Your task to perform on an android device: Go to notification settings Image 0: 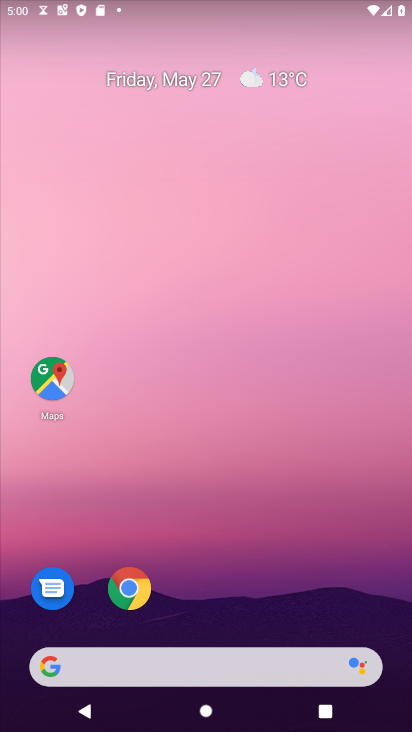
Step 0: drag from (234, 562) to (285, 89)
Your task to perform on an android device: Go to notification settings Image 1: 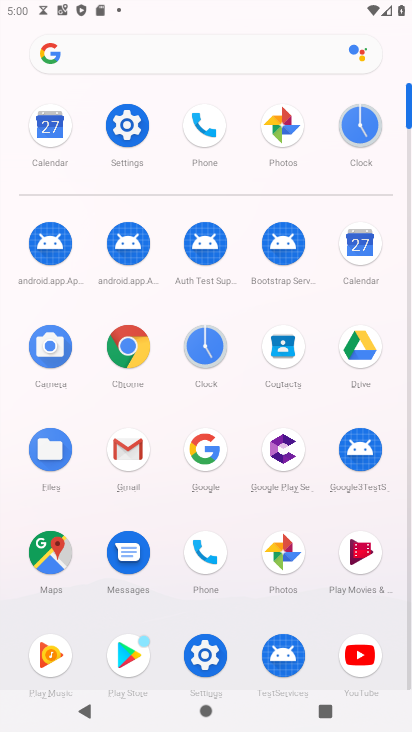
Step 1: click (107, 121)
Your task to perform on an android device: Go to notification settings Image 2: 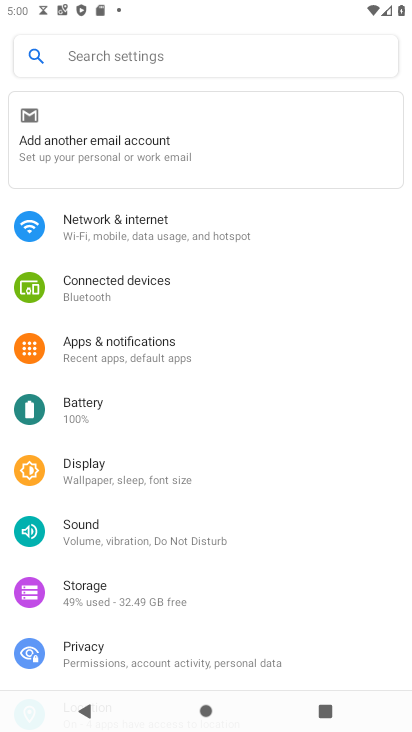
Step 2: click (210, 363)
Your task to perform on an android device: Go to notification settings Image 3: 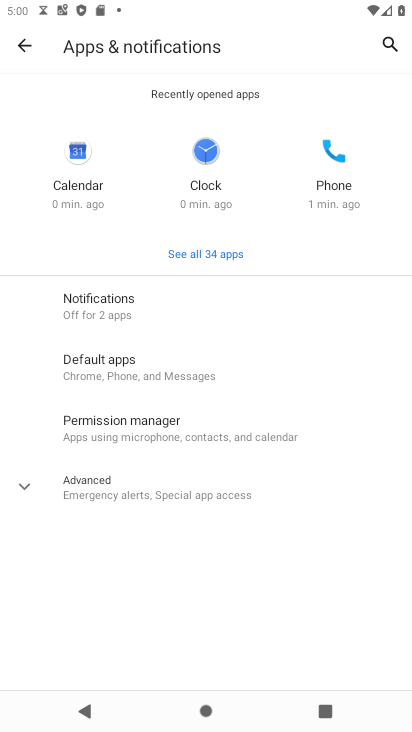
Step 3: task complete